Your task to perform on an android device: uninstall "Google News" Image 0: 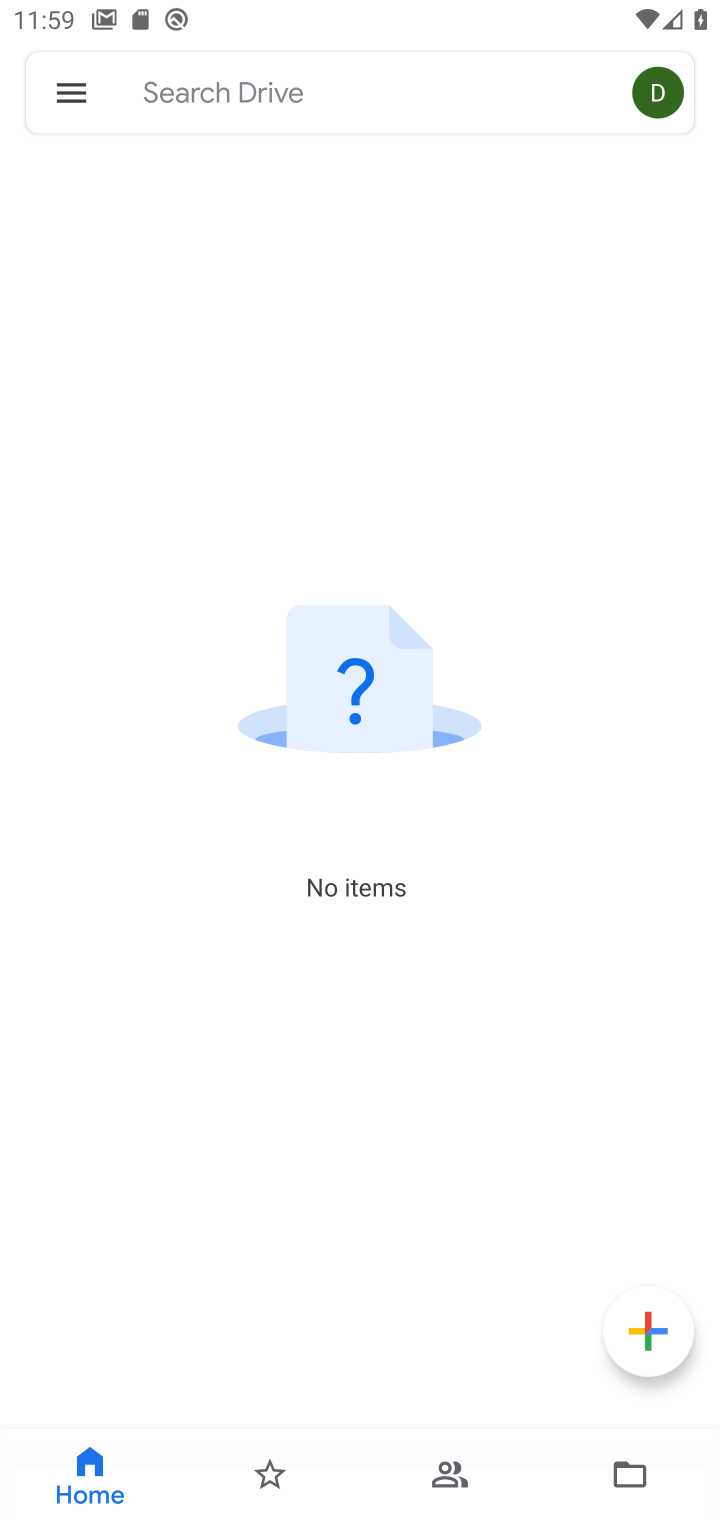
Step 0: press home button
Your task to perform on an android device: uninstall "Google News" Image 1: 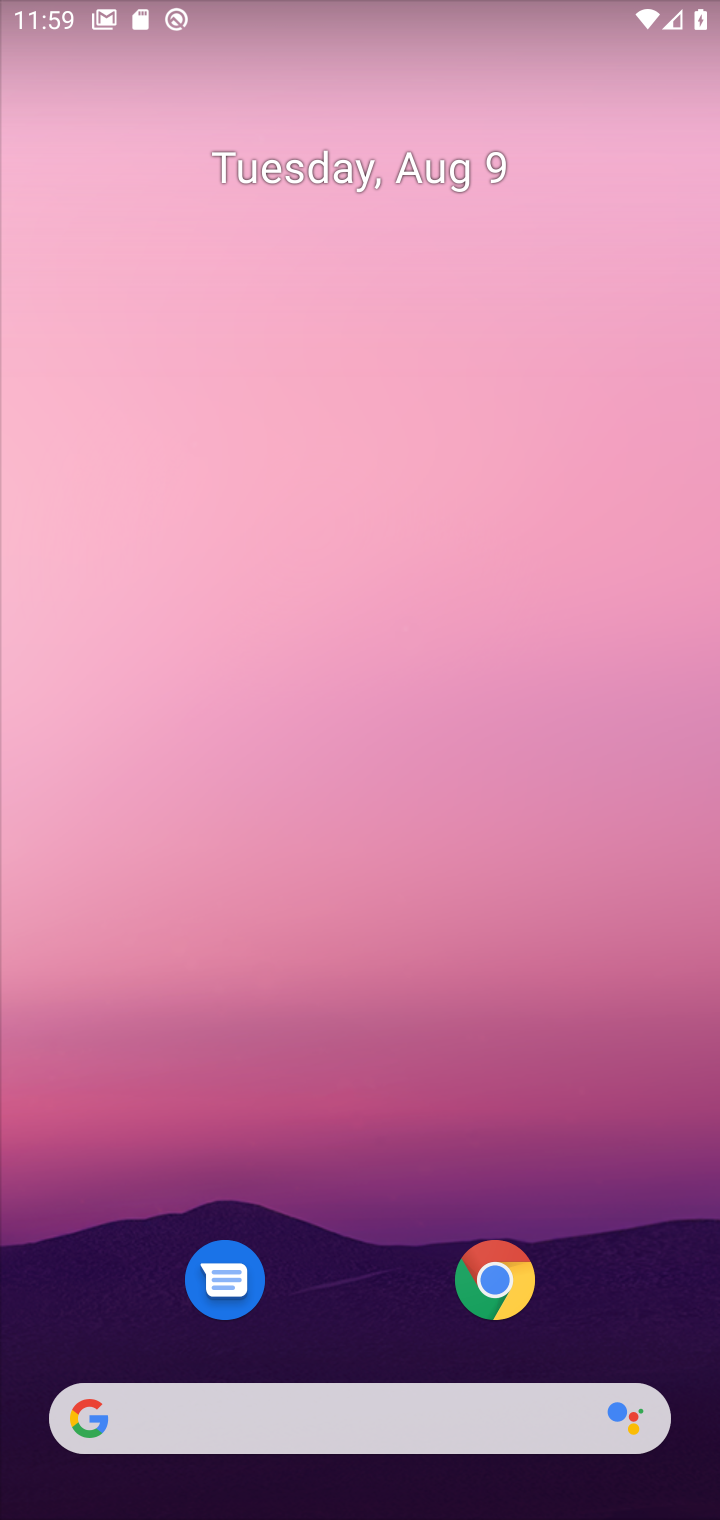
Step 1: click (294, 1402)
Your task to perform on an android device: uninstall "Google News" Image 2: 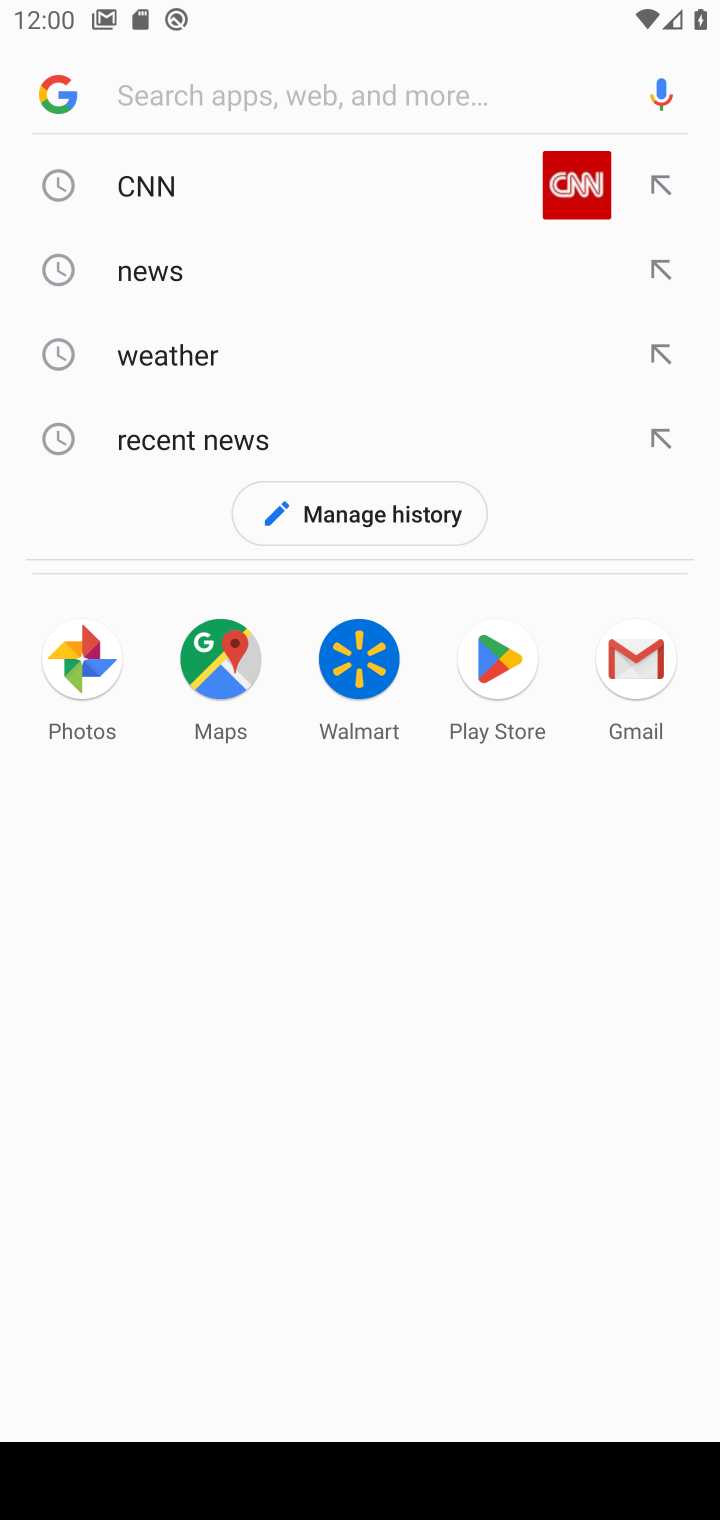
Step 2: press home button
Your task to perform on an android device: uninstall "Google News" Image 3: 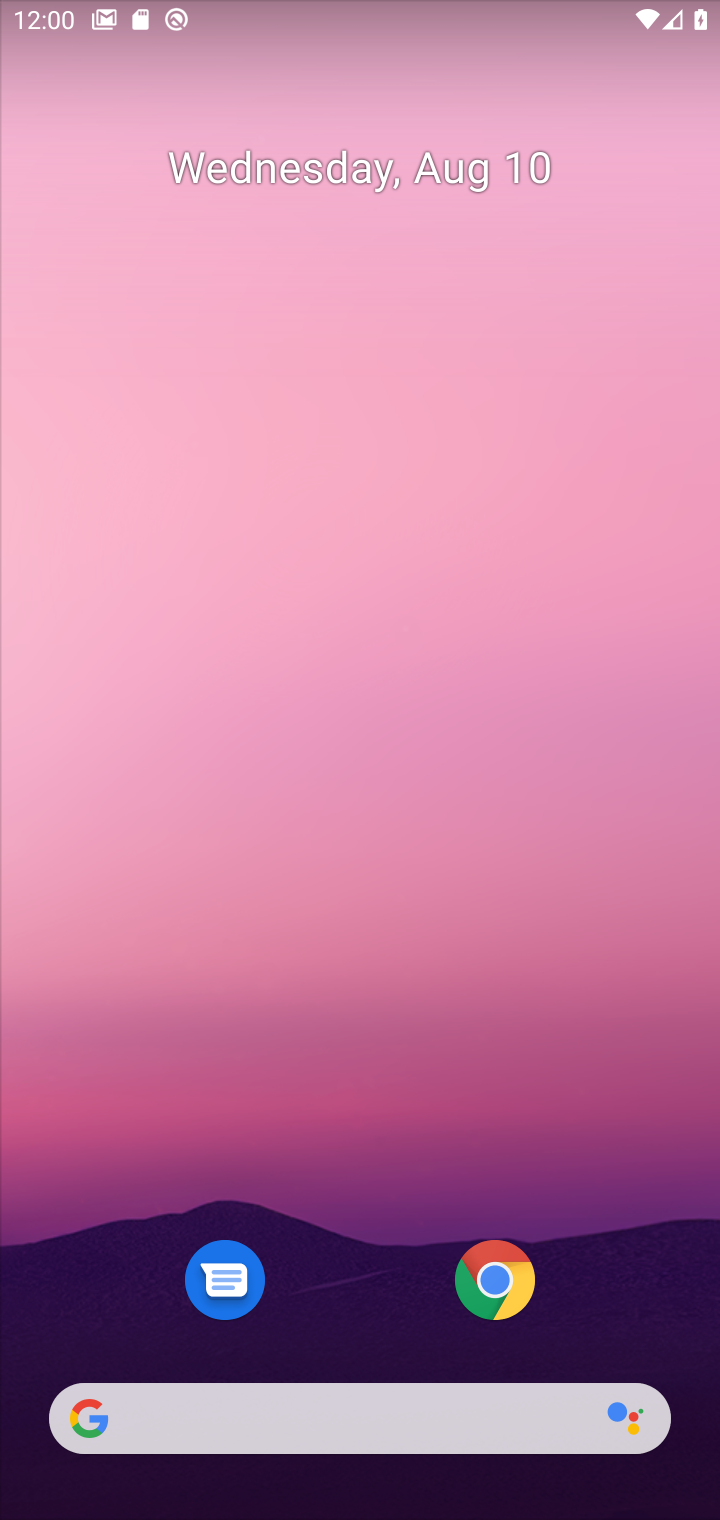
Step 3: drag from (397, 1181) to (576, 112)
Your task to perform on an android device: uninstall "Google News" Image 4: 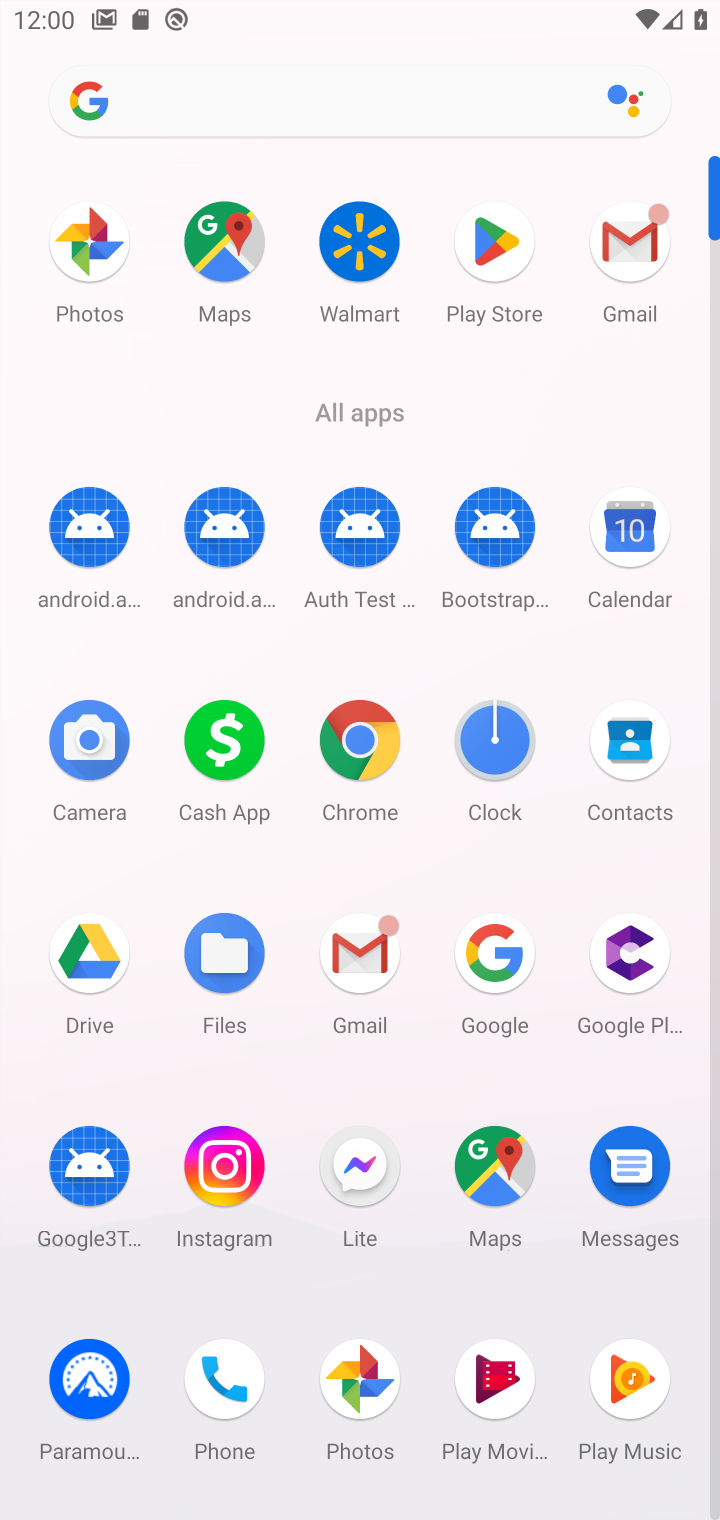
Step 4: click (463, 211)
Your task to perform on an android device: uninstall "Google News" Image 5: 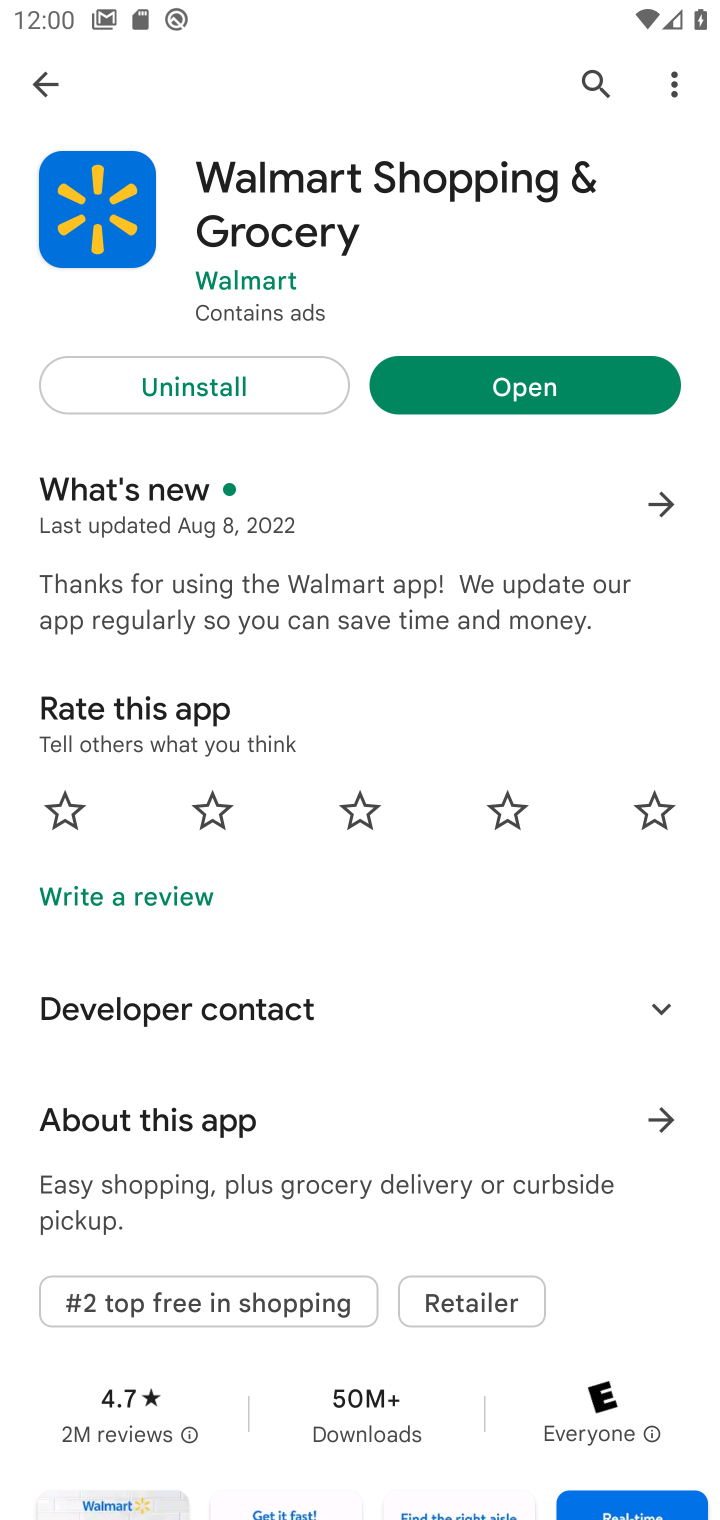
Step 5: click (586, 78)
Your task to perform on an android device: uninstall "Google News" Image 6: 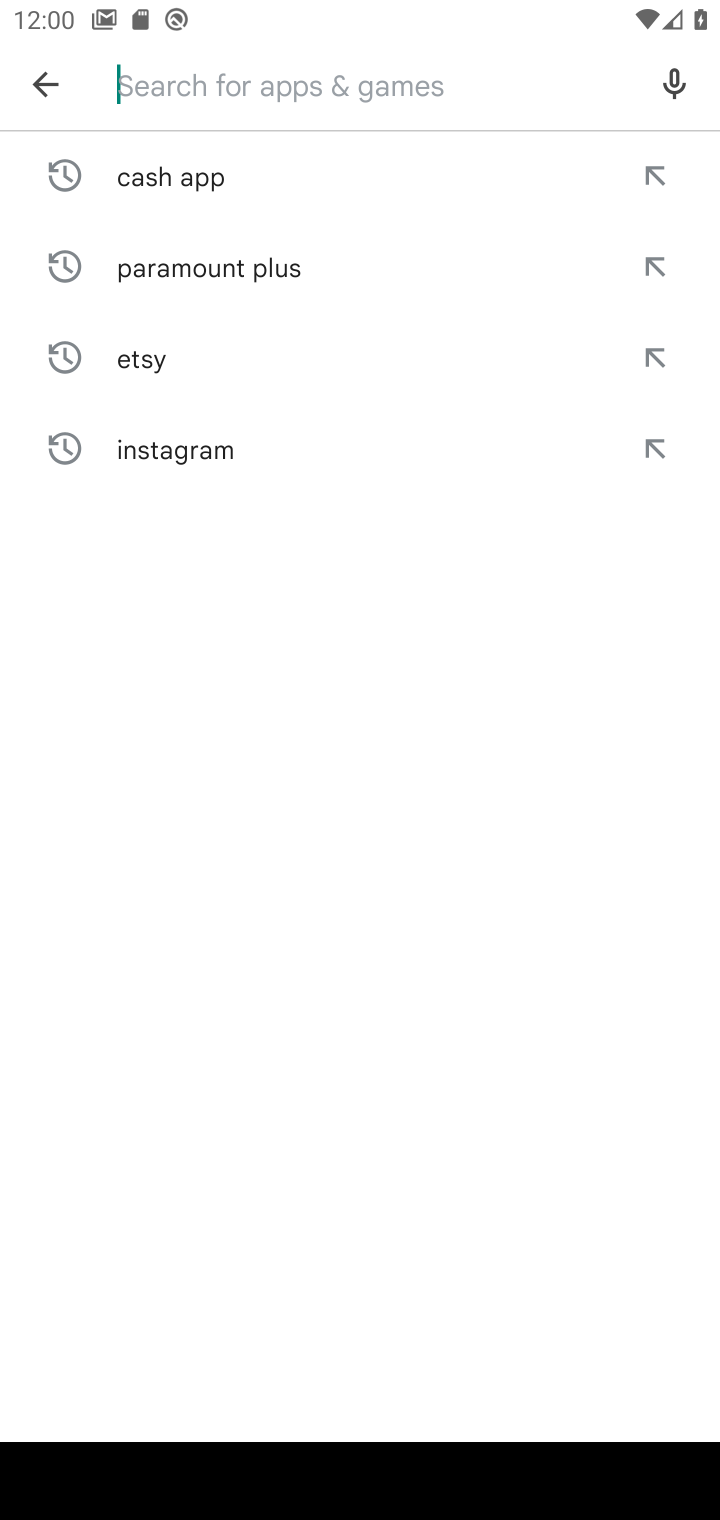
Step 6: click (252, 107)
Your task to perform on an android device: uninstall "Google News" Image 7: 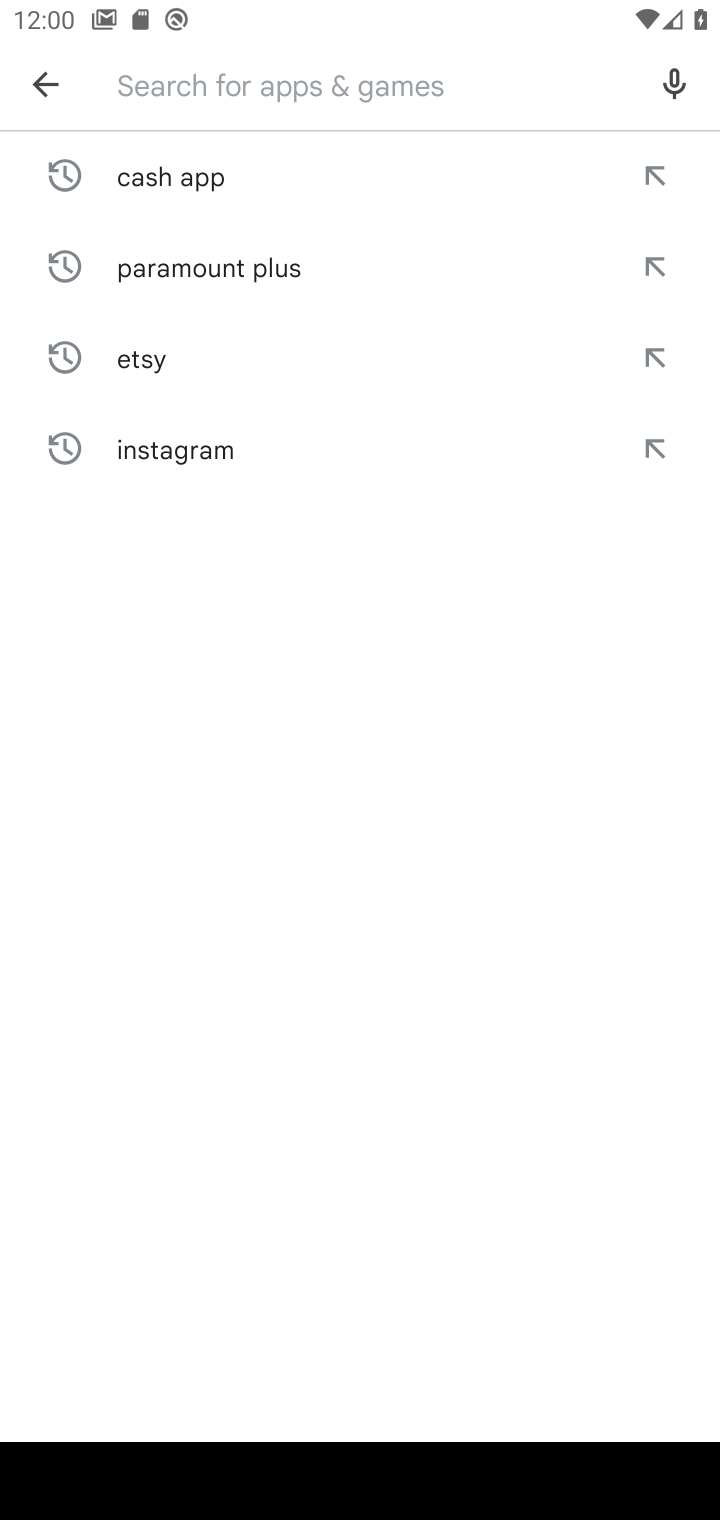
Step 7: type "Google News"
Your task to perform on an android device: uninstall "Google News" Image 8: 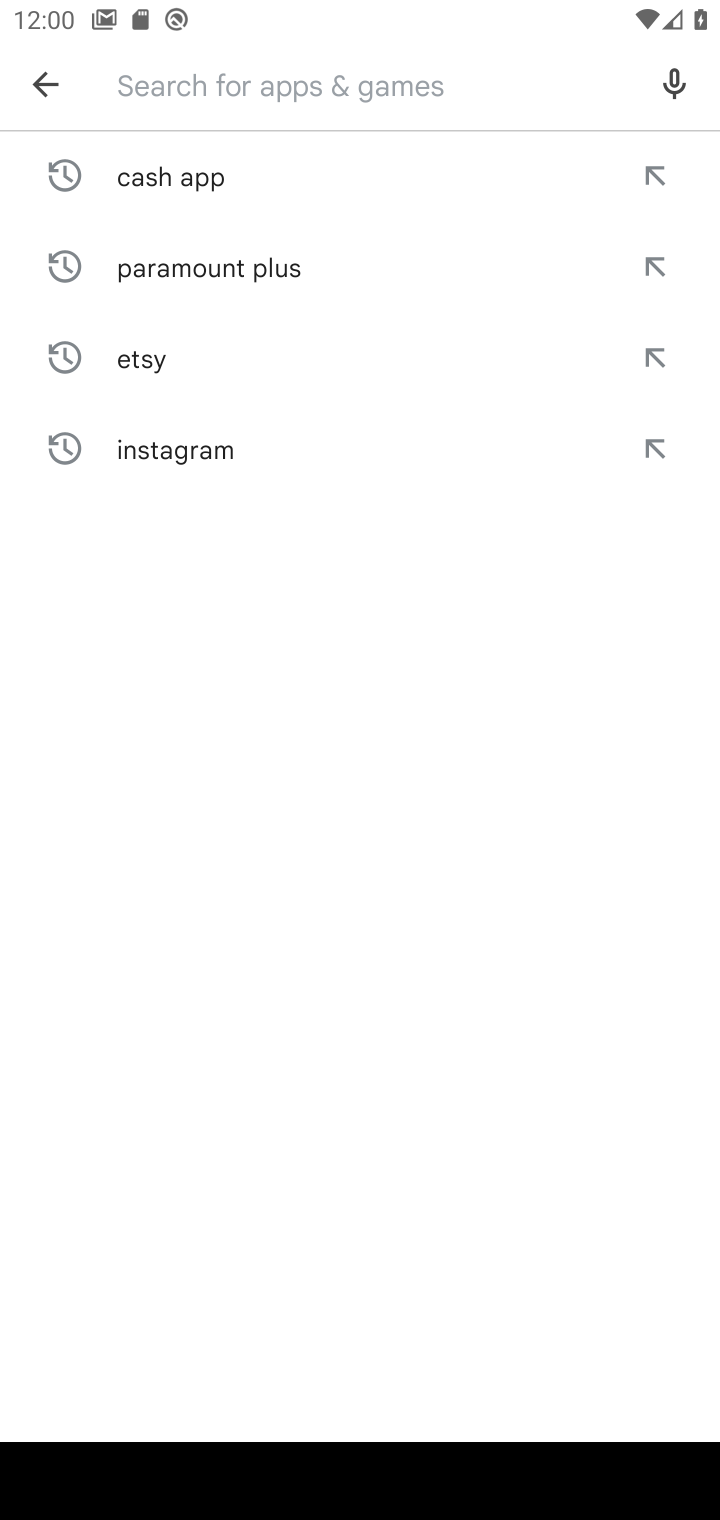
Step 8: click (342, 815)
Your task to perform on an android device: uninstall "Google News" Image 9: 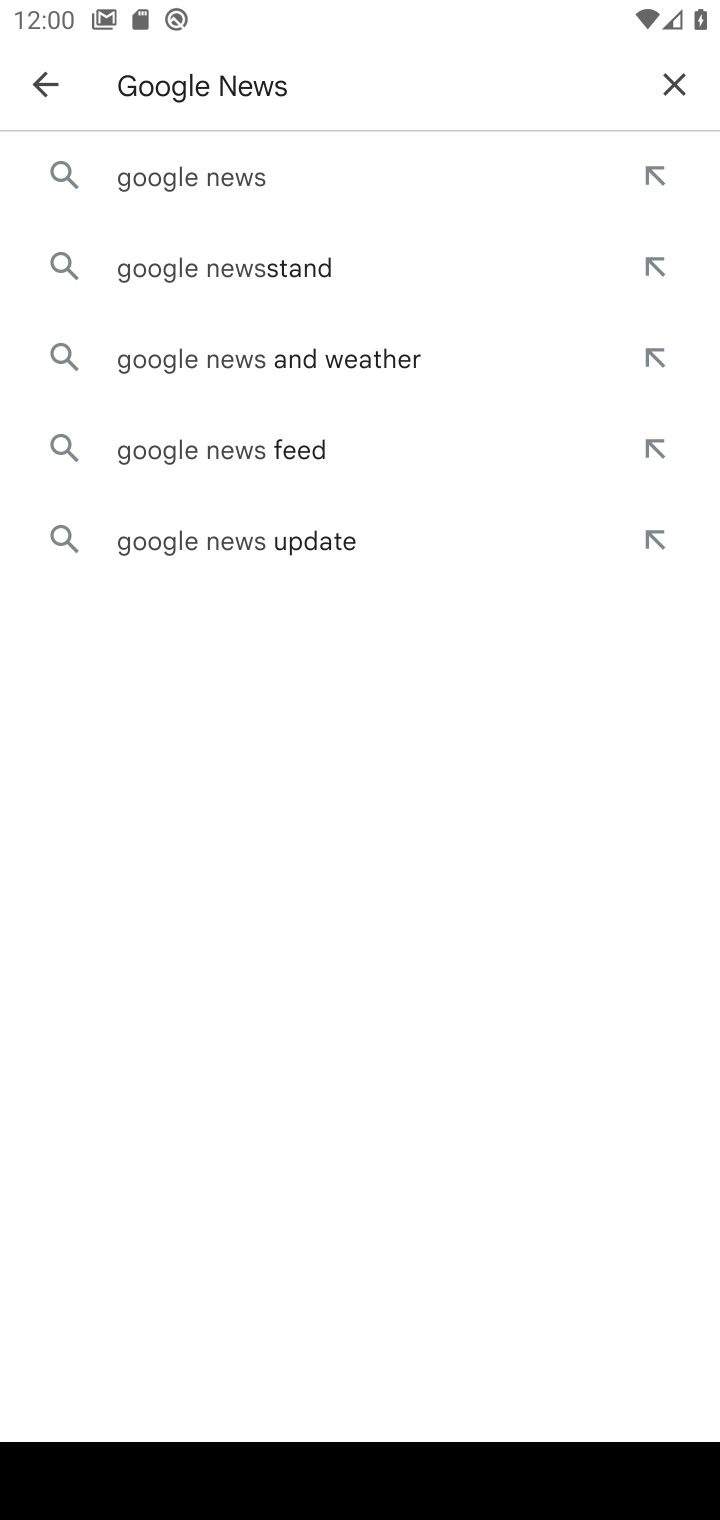
Step 9: click (218, 181)
Your task to perform on an android device: uninstall "Google News" Image 10: 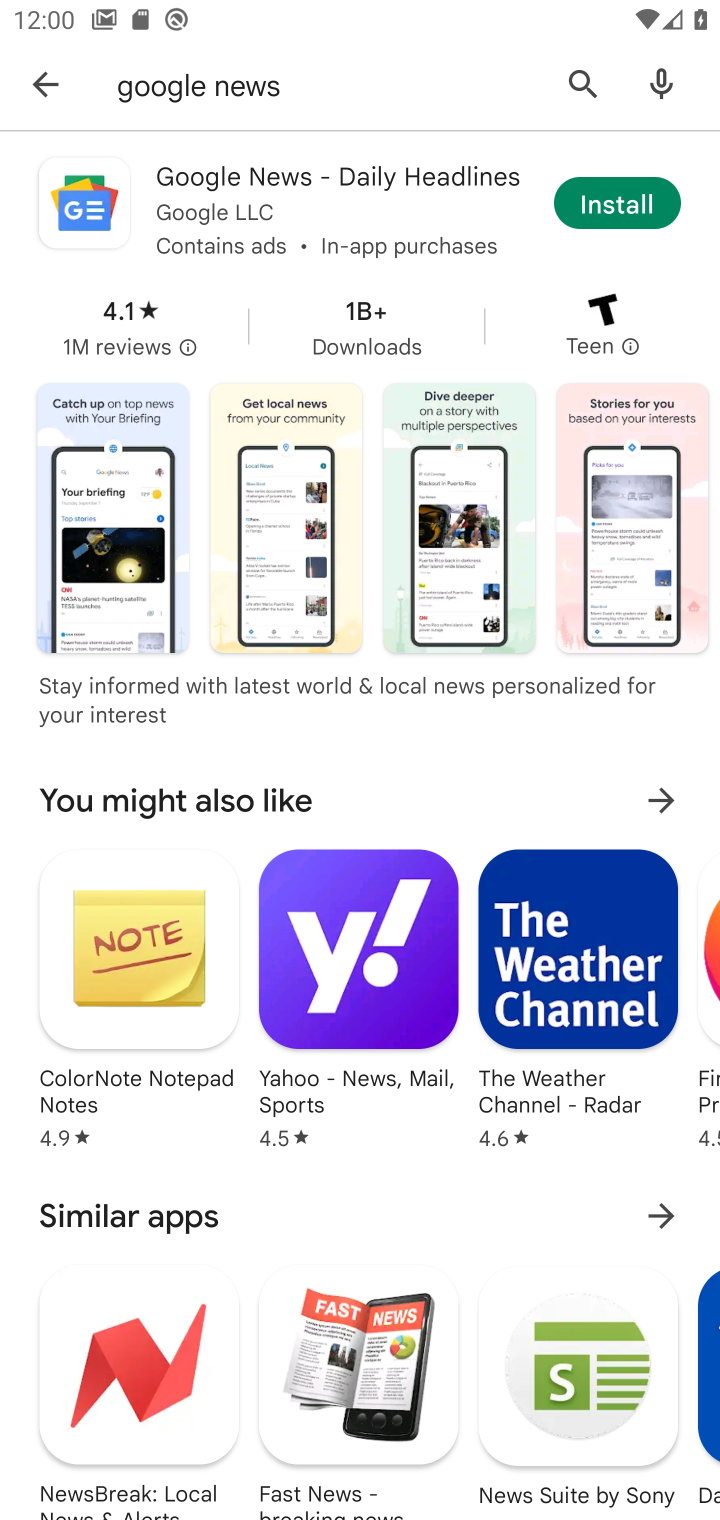
Step 10: task complete